Your task to perform on an android device: turn off wifi Image 0: 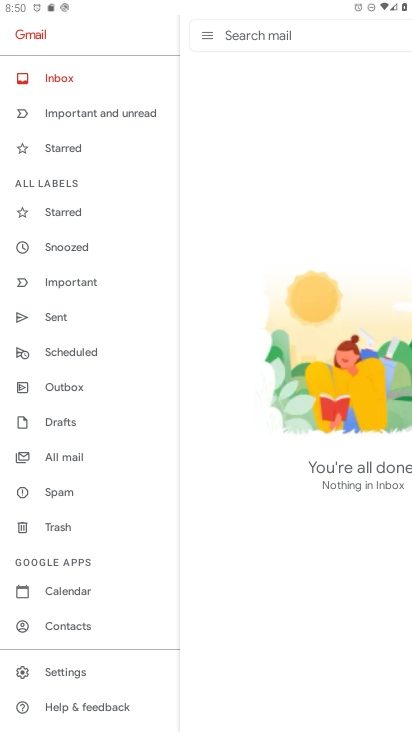
Step 0: press home button
Your task to perform on an android device: turn off wifi Image 1: 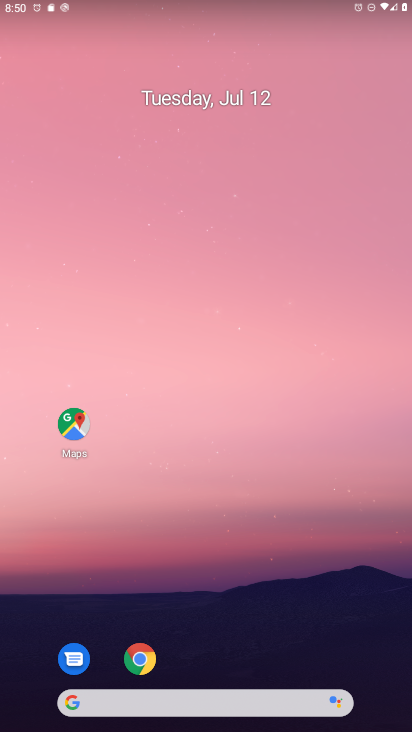
Step 1: drag from (201, 700) to (186, 266)
Your task to perform on an android device: turn off wifi Image 2: 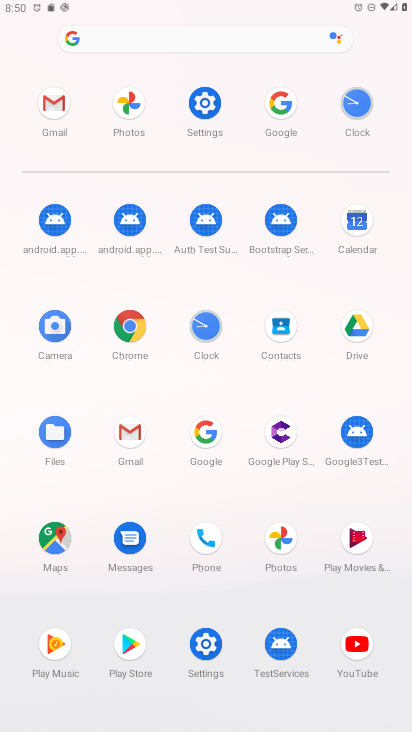
Step 2: click (205, 102)
Your task to perform on an android device: turn off wifi Image 3: 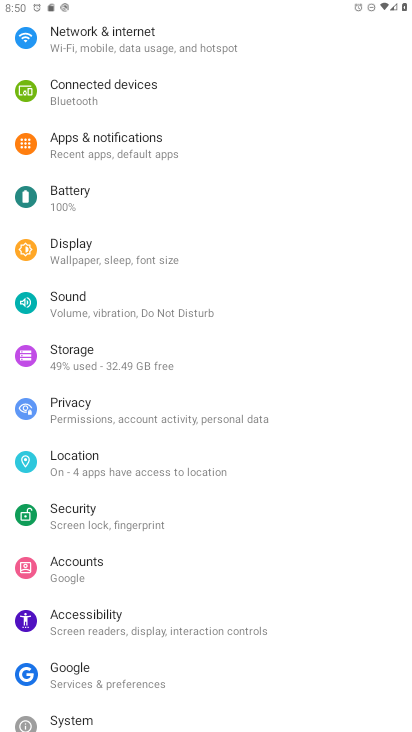
Step 3: click (152, 49)
Your task to perform on an android device: turn off wifi Image 4: 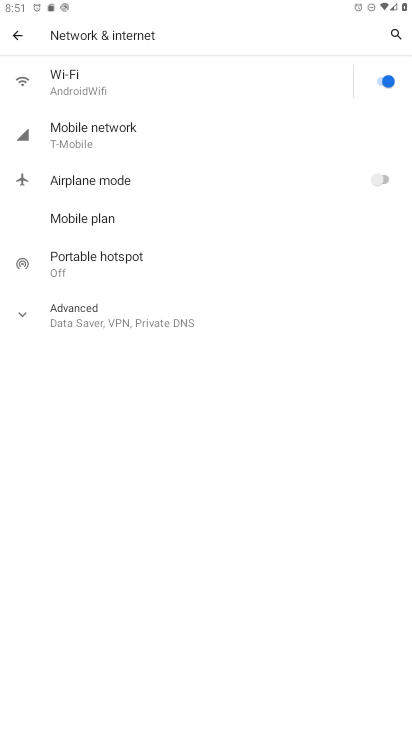
Step 4: click (387, 82)
Your task to perform on an android device: turn off wifi Image 5: 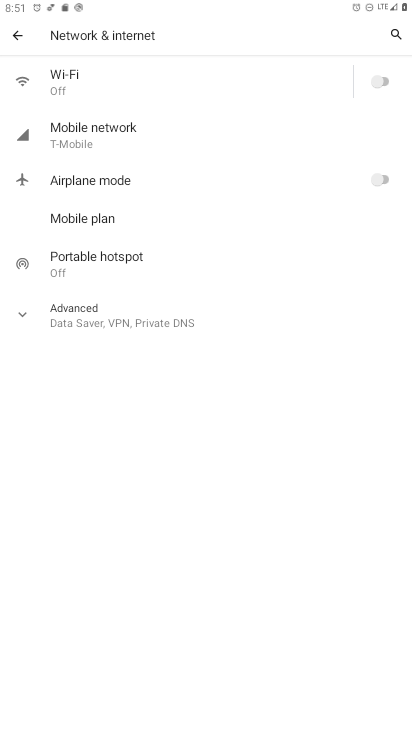
Step 5: task complete